Your task to perform on an android device: Open Chrome and go to the settings page Image 0: 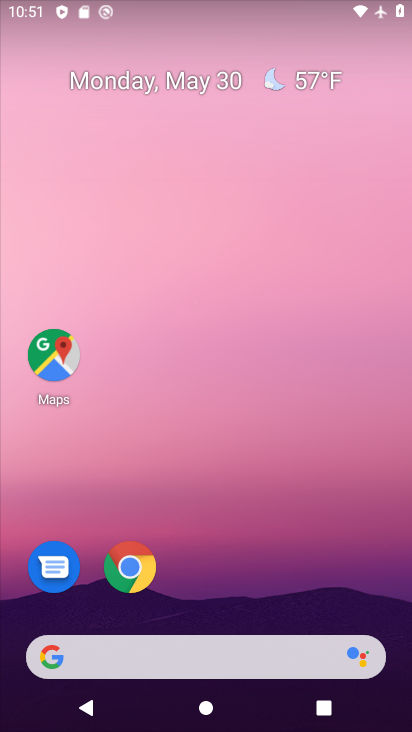
Step 0: click (133, 590)
Your task to perform on an android device: Open Chrome and go to the settings page Image 1: 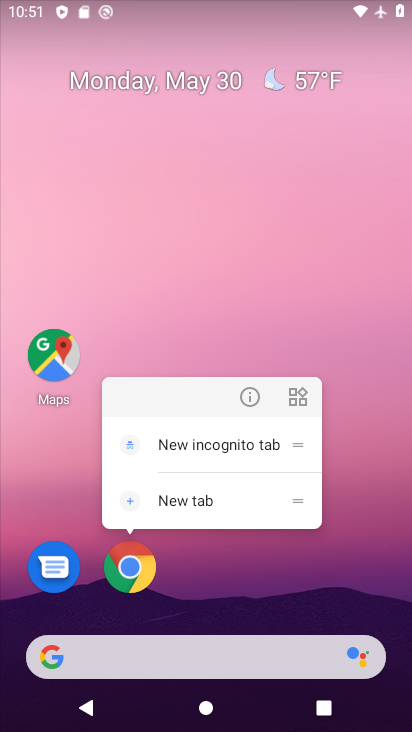
Step 1: click (133, 590)
Your task to perform on an android device: Open Chrome and go to the settings page Image 2: 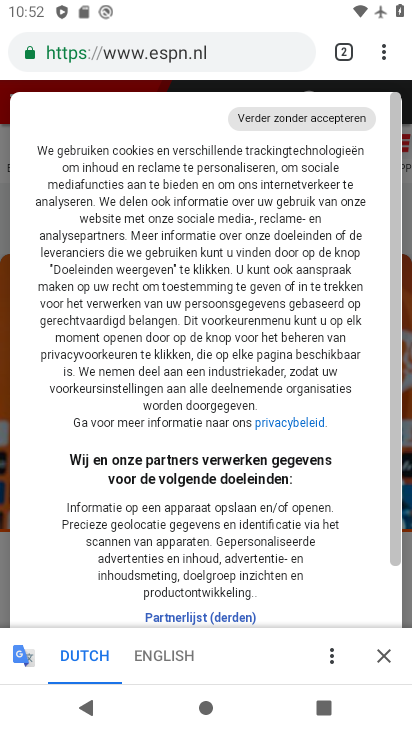
Step 2: click (381, 50)
Your task to perform on an android device: Open Chrome and go to the settings page Image 3: 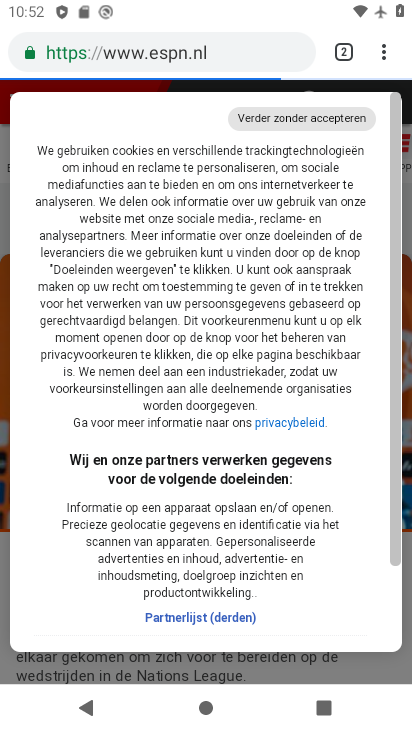
Step 3: click (385, 49)
Your task to perform on an android device: Open Chrome and go to the settings page Image 4: 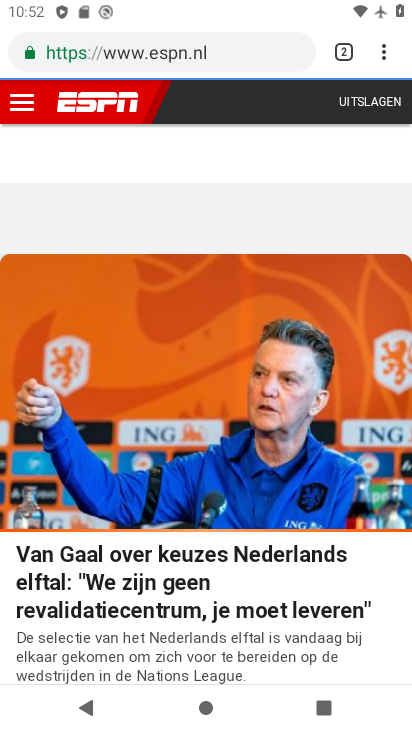
Step 4: task complete